Your task to perform on an android device: change timer sound Image 0: 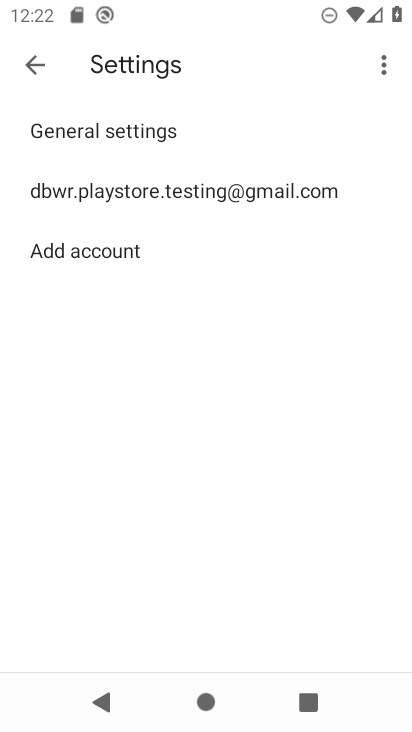
Step 0: press home button
Your task to perform on an android device: change timer sound Image 1: 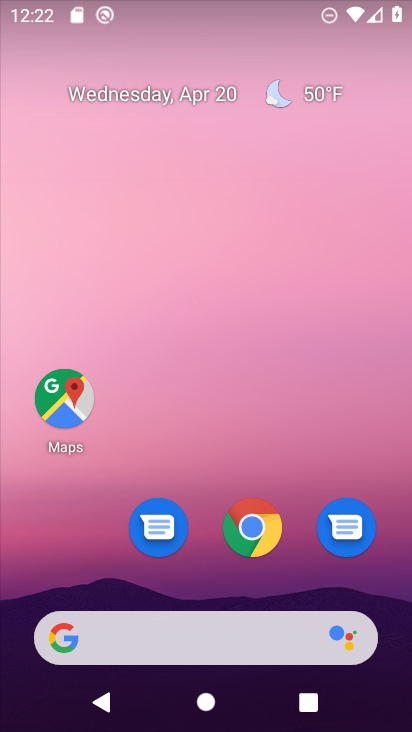
Step 1: drag from (373, 570) to (353, 0)
Your task to perform on an android device: change timer sound Image 2: 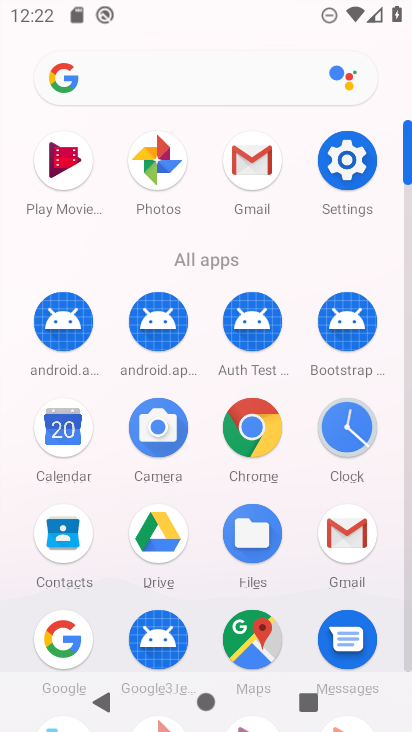
Step 2: click (351, 432)
Your task to perform on an android device: change timer sound Image 3: 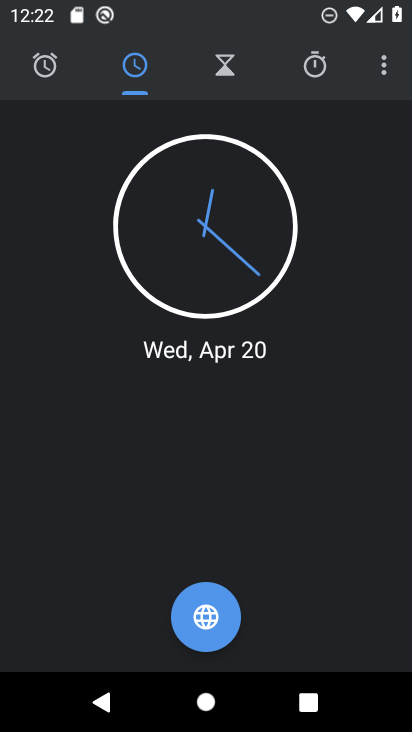
Step 3: click (383, 73)
Your task to perform on an android device: change timer sound Image 4: 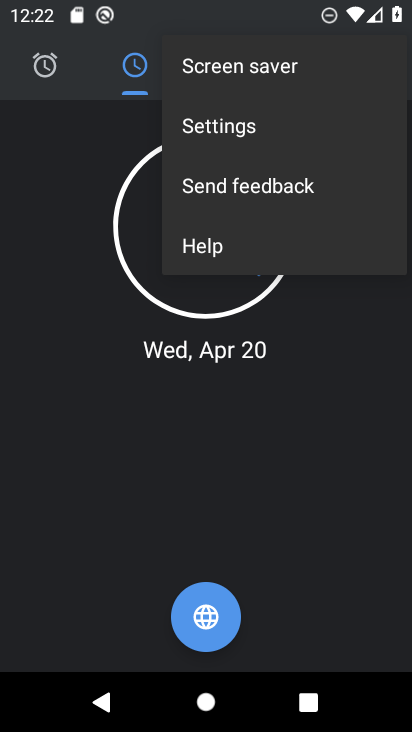
Step 4: click (236, 127)
Your task to perform on an android device: change timer sound Image 5: 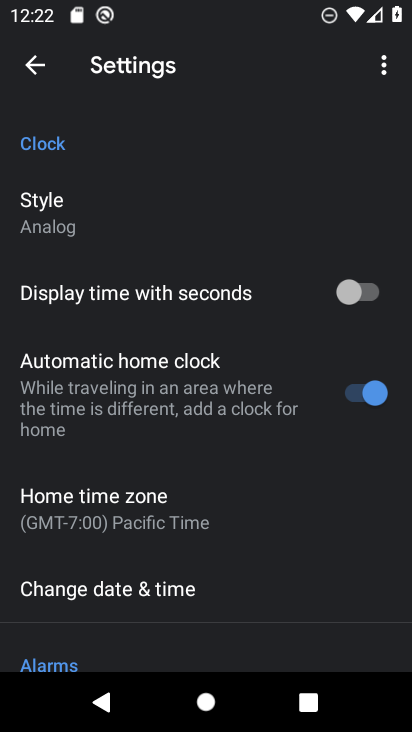
Step 5: drag from (203, 571) to (191, 177)
Your task to perform on an android device: change timer sound Image 6: 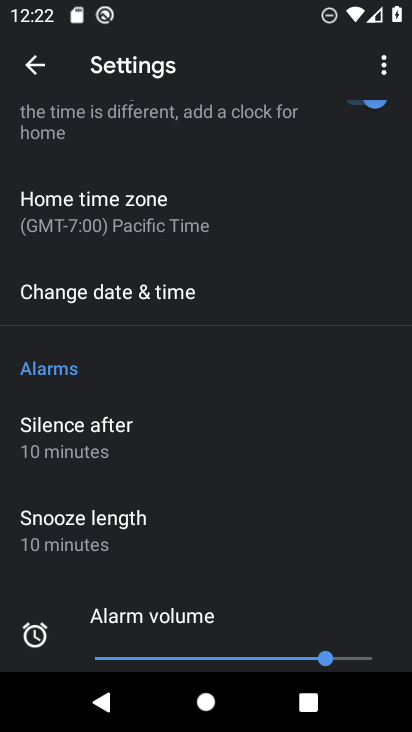
Step 6: drag from (153, 457) to (163, 233)
Your task to perform on an android device: change timer sound Image 7: 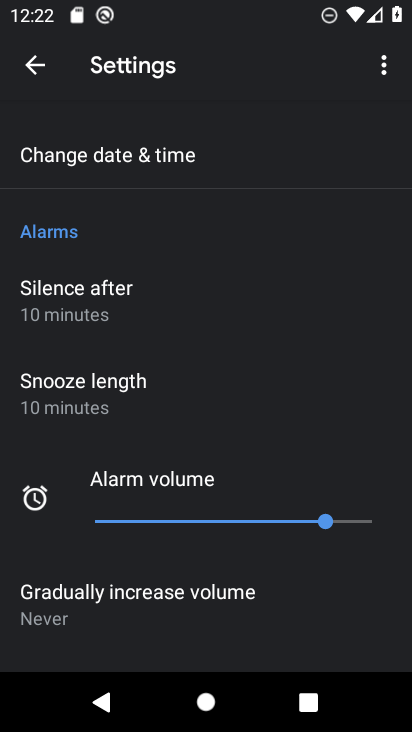
Step 7: drag from (133, 509) to (145, 263)
Your task to perform on an android device: change timer sound Image 8: 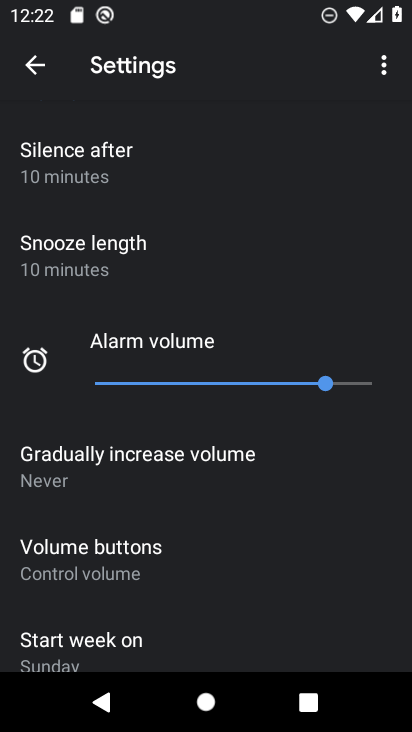
Step 8: drag from (122, 490) to (134, 377)
Your task to perform on an android device: change timer sound Image 9: 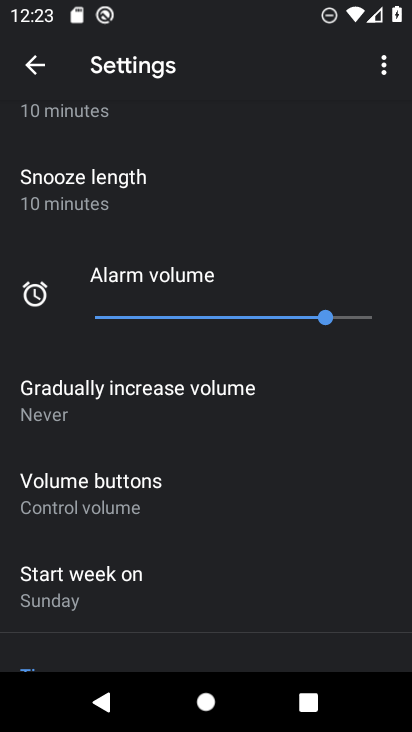
Step 9: drag from (168, 552) to (163, 291)
Your task to perform on an android device: change timer sound Image 10: 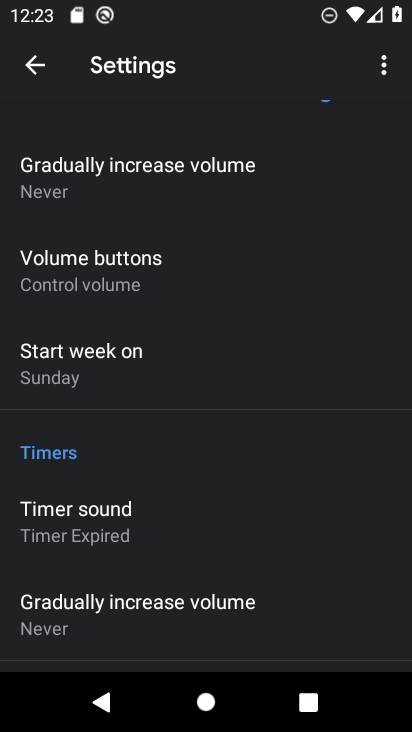
Step 10: click (83, 516)
Your task to perform on an android device: change timer sound Image 11: 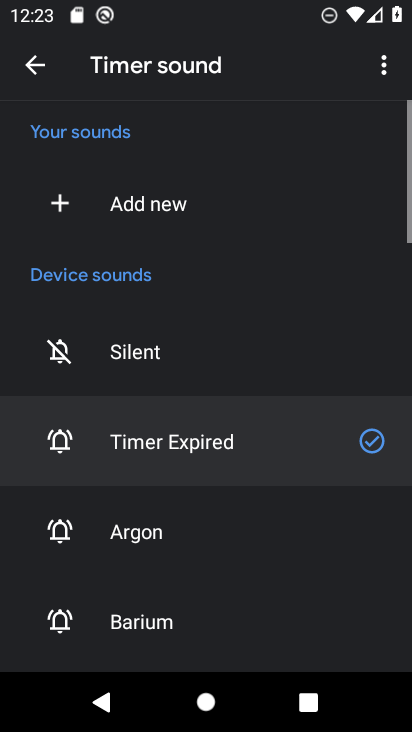
Step 11: click (175, 537)
Your task to perform on an android device: change timer sound Image 12: 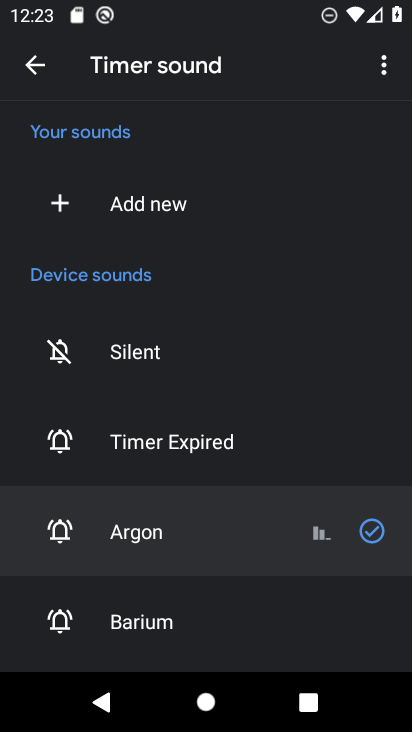
Step 12: task complete